Your task to perform on an android device: toggle notification dots Image 0: 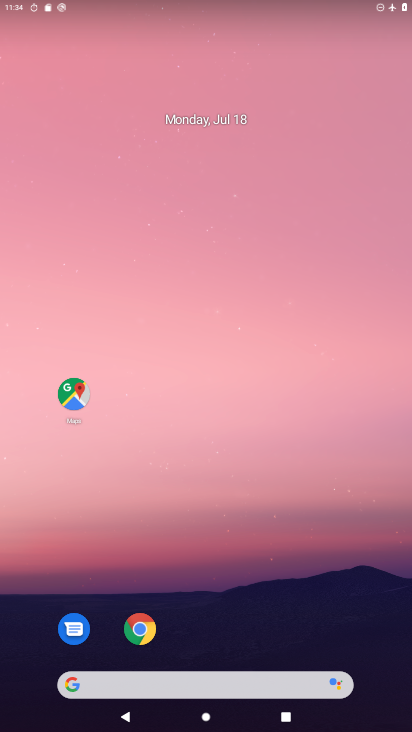
Step 0: drag from (290, 579) to (286, 3)
Your task to perform on an android device: toggle notification dots Image 1: 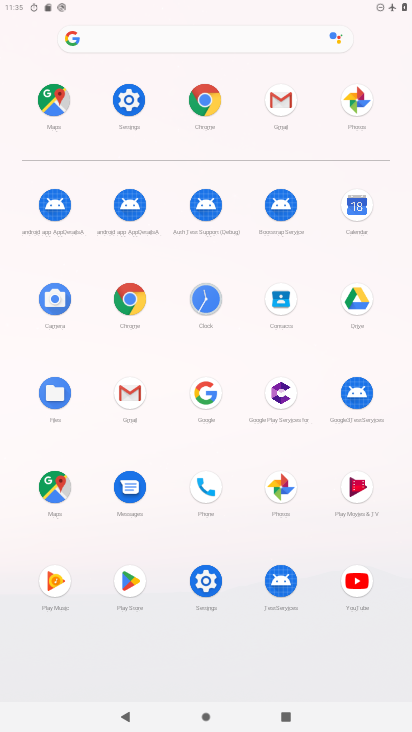
Step 1: click (116, 103)
Your task to perform on an android device: toggle notification dots Image 2: 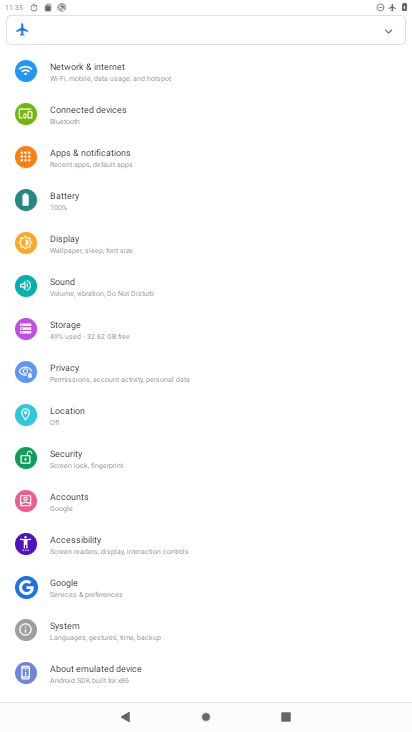
Step 2: click (89, 156)
Your task to perform on an android device: toggle notification dots Image 3: 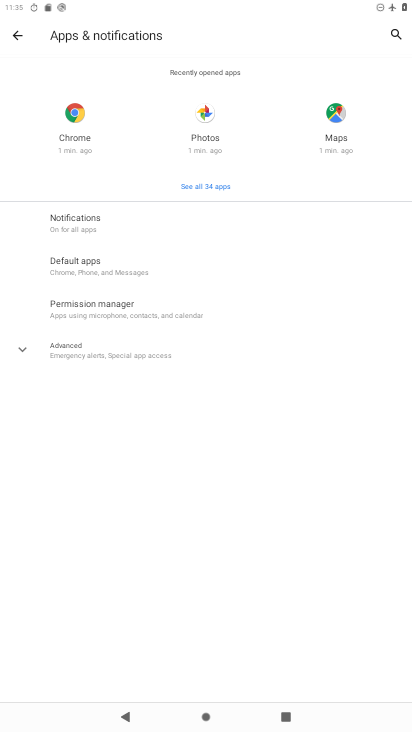
Step 3: click (89, 226)
Your task to perform on an android device: toggle notification dots Image 4: 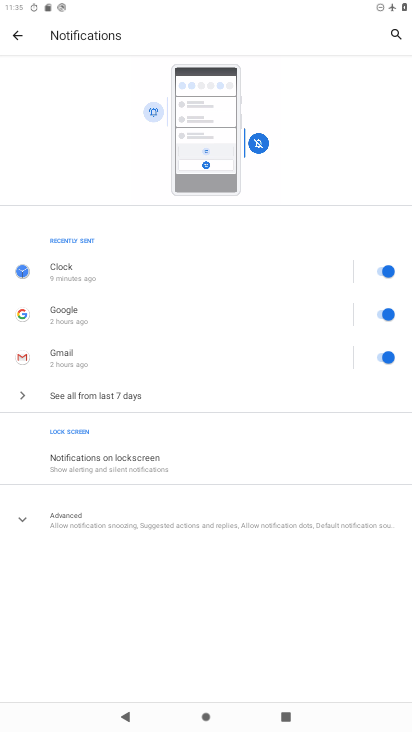
Step 4: click (171, 518)
Your task to perform on an android device: toggle notification dots Image 5: 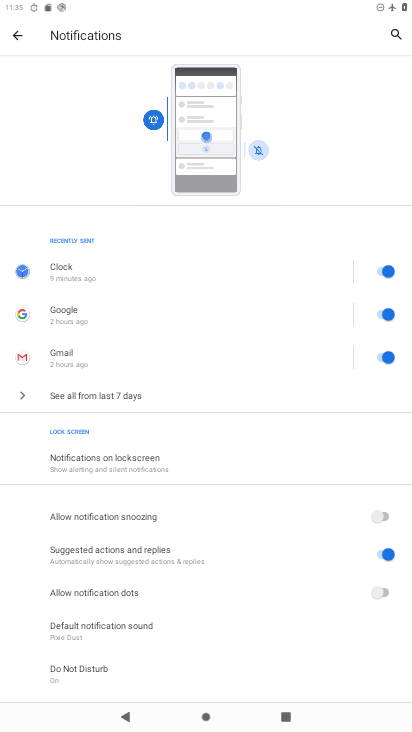
Step 5: click (368, 593)
Your task to perform on an android device: toggle notification dots Image 6: 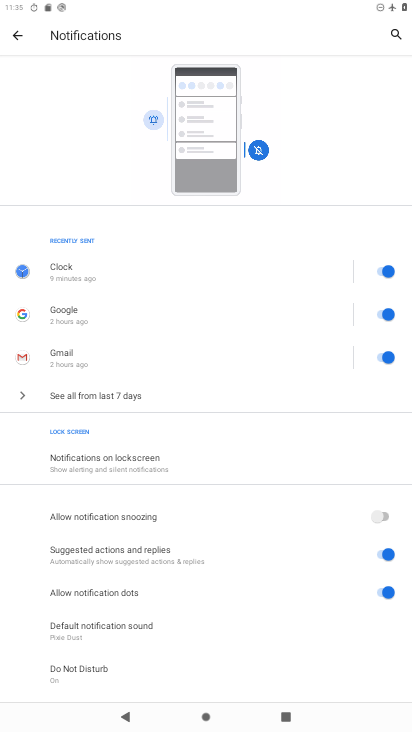
Step 6: task complete